Your task to perform on an android device: Clear the shopping cart on walmart. Image 0: 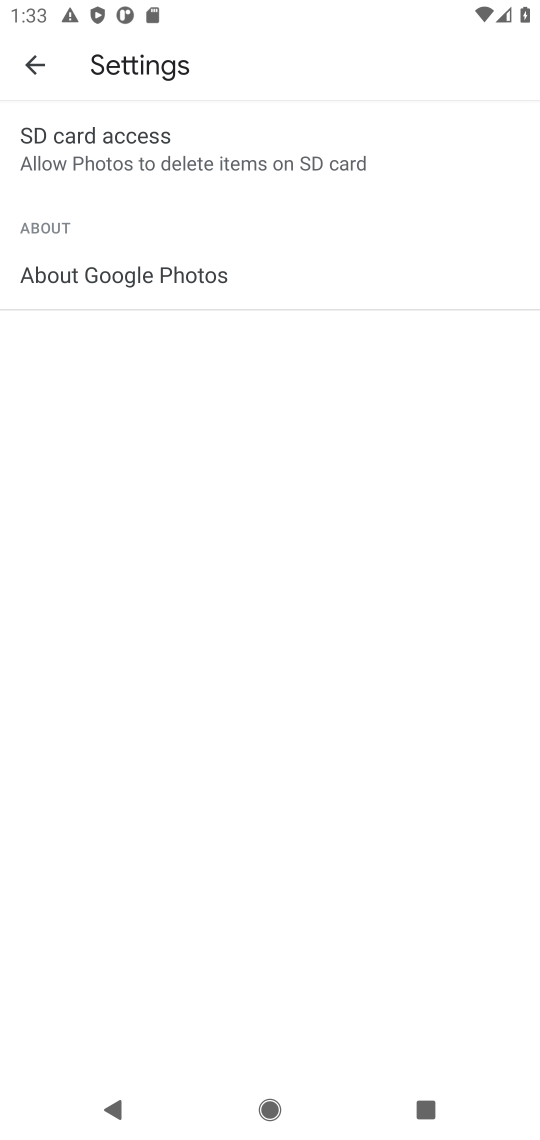
Step 0: press home button
Your task to perform on an android device: Clear the shopping cart on walmart. Image 1: 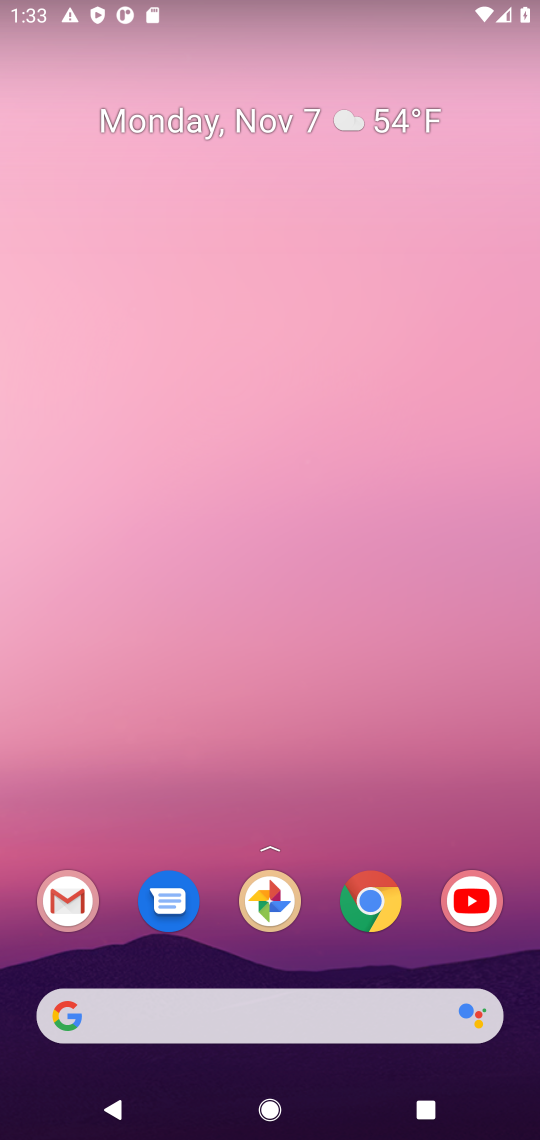
Step 1: click (372, 902)
Your task to perform on an android device: Clear the shopping cart on walmart. Image 2: 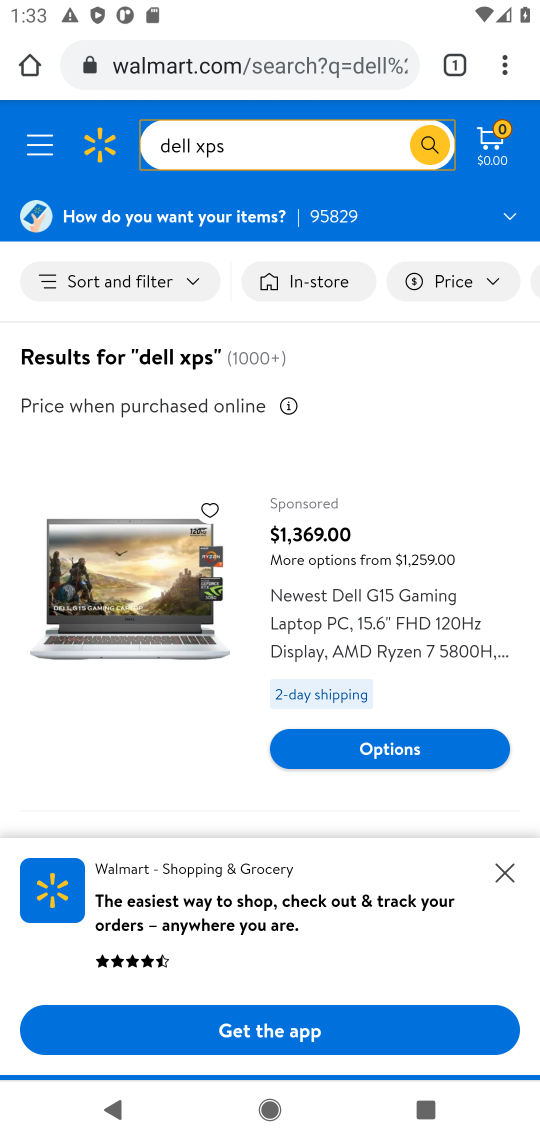
Step 2: click (485, 136)
Your task to perform on an android device: Clear the shopping cart on walmart. Image 3: 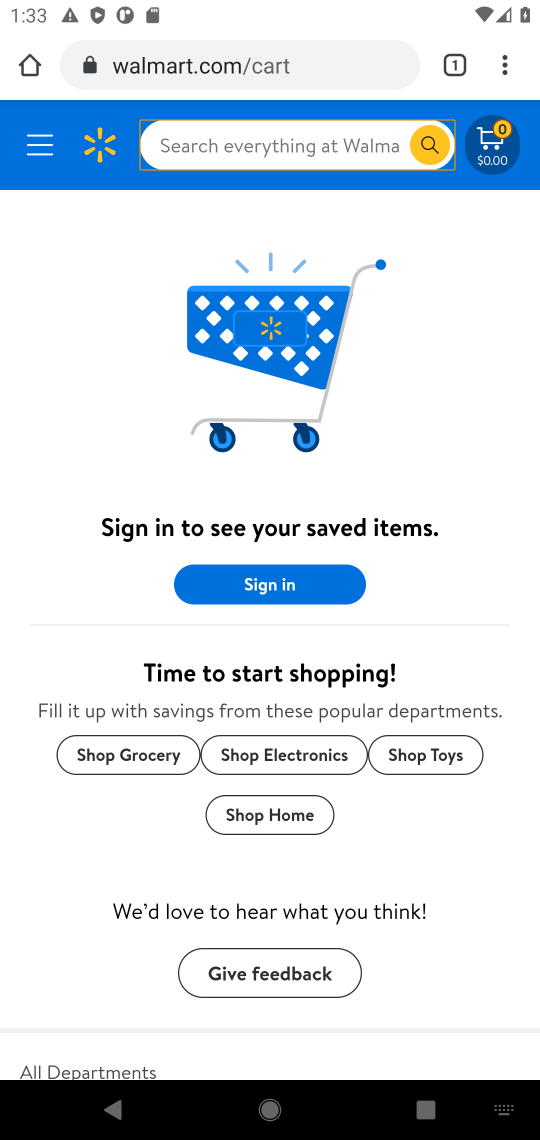
Step 3: task complete